Your task to perform on an android device: toggle airplane mode Image 0: 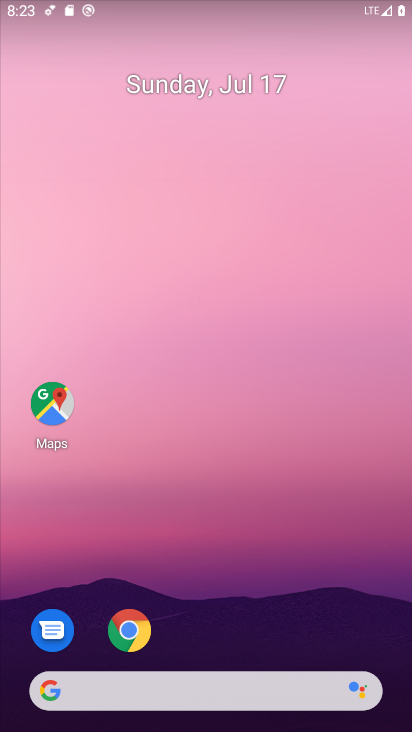
Step 0: drag from (249, 528) to (302, 8)
Your task to perform on an android device: toggle airplane mode Image 1: 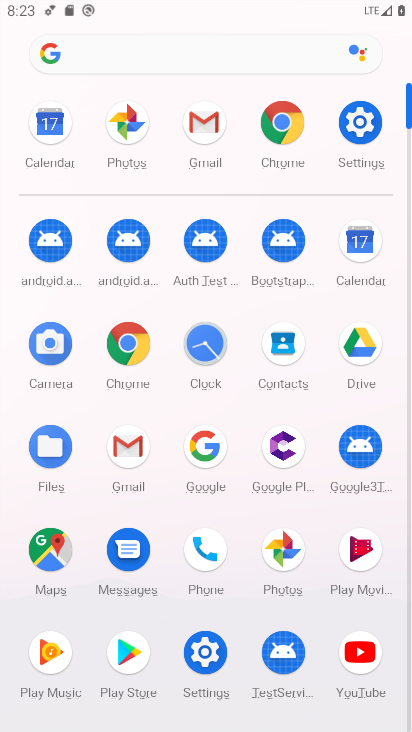
Step 1: click (360, 145)
Your task to perform on an android device: toggle airplane mode Image 2: 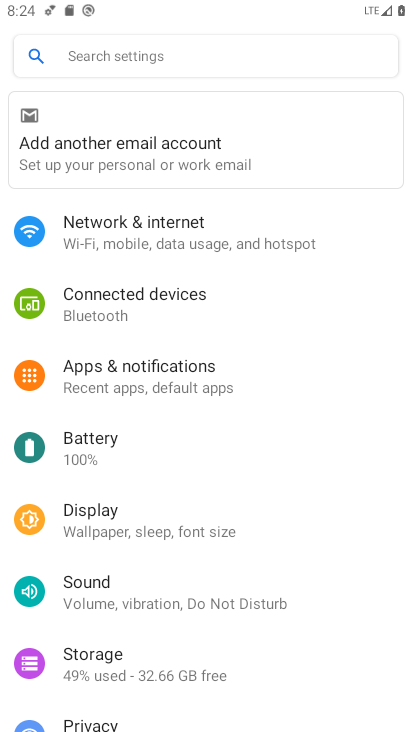
Step 2: click (128, 221)
Your task to perform on an android device: toggle airplane mode Image 3: 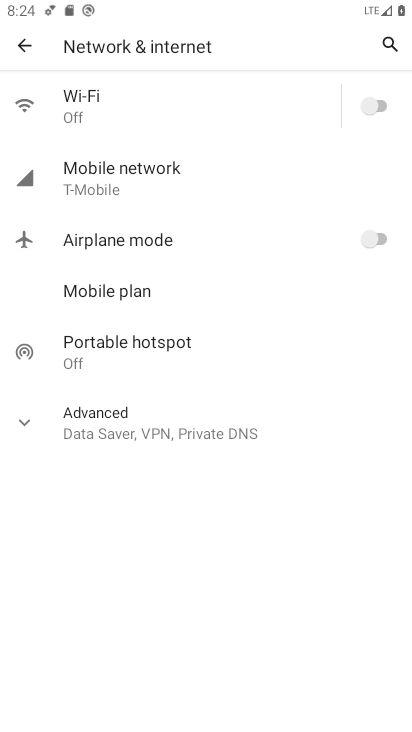
Step 3: click (388, 232)
Your task to perform on an android device: toggle airplane mode Image 4: 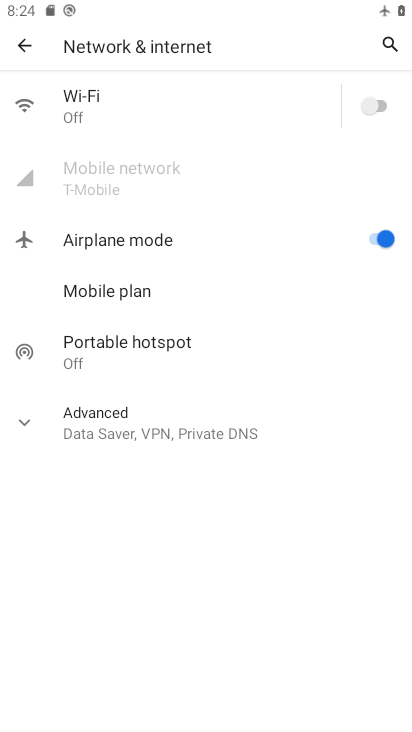
Step 4: task complete